Your task to perform on an android device: Do I have any events today? Image 0: 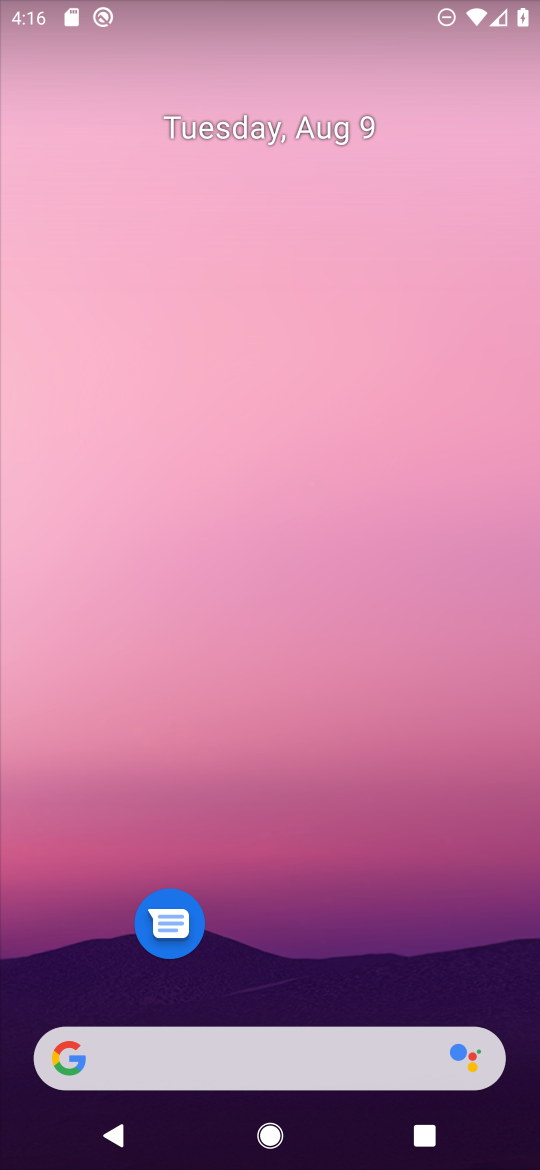
Step 0: drag from (312, 859) to (435, 0)
Your task to perform on an android device: Do I have any events today? Image 1: 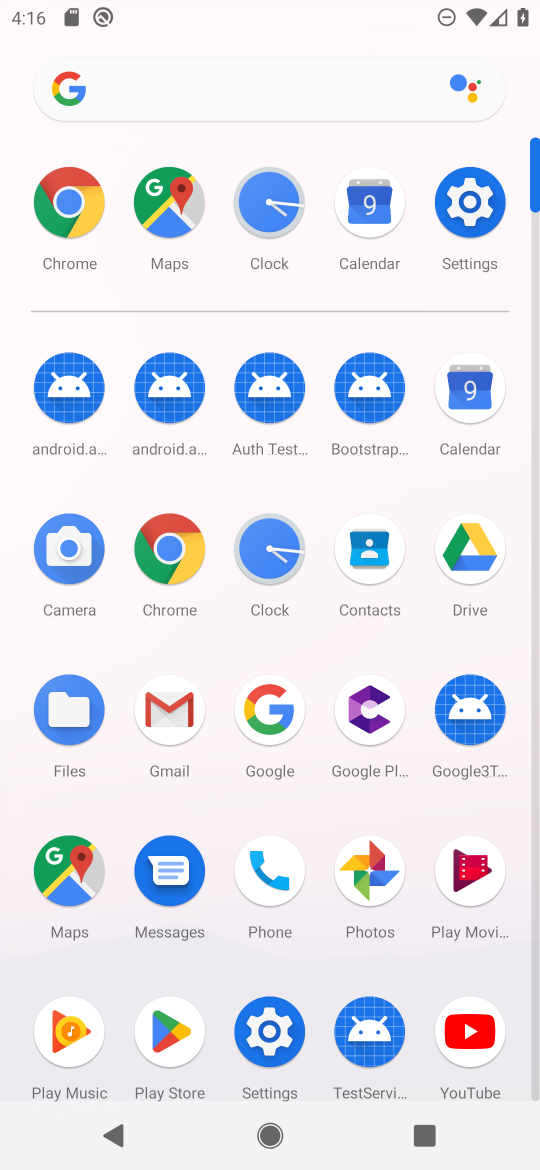
Step 1: click (372, 210)
Your task to perform on an android device: Do I have any events today? Image 2: 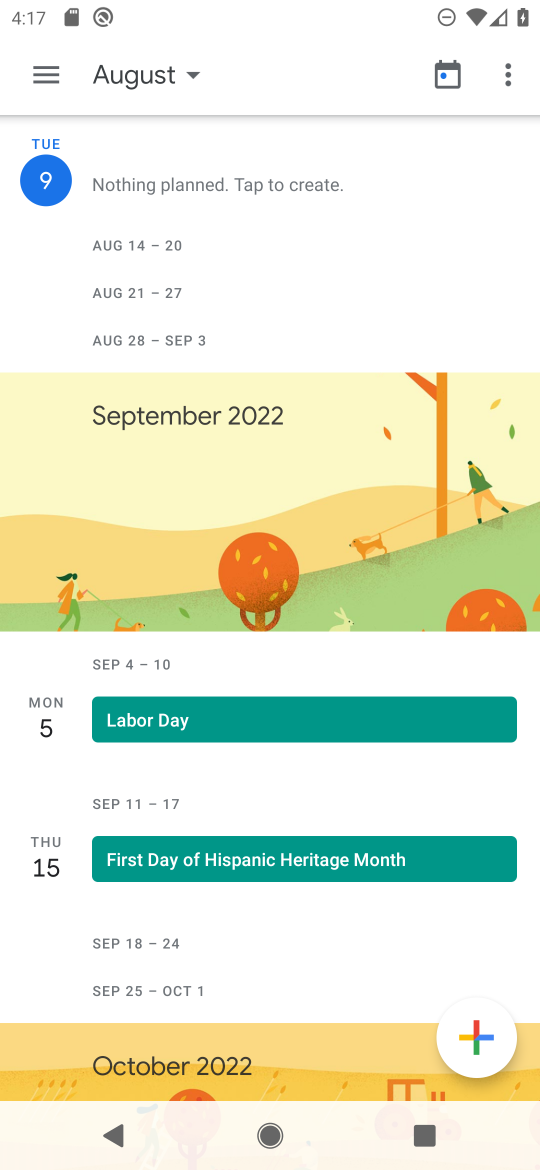
Step 2: task complete